Your task to perform on an android device: check battery use Image 0: 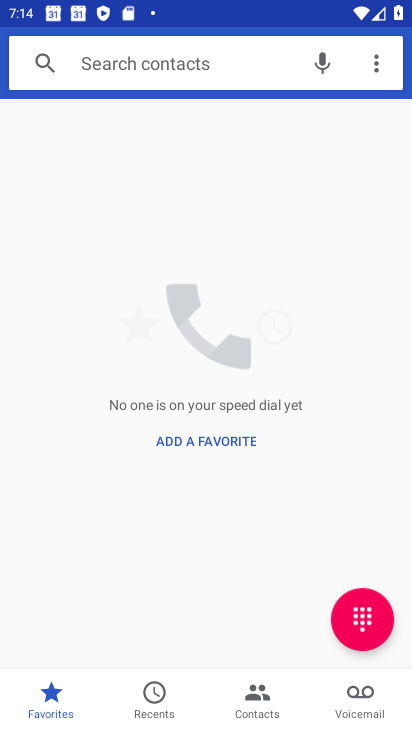
Step 0: press home button
Your task to perform on an android device: check battery use Image 1: 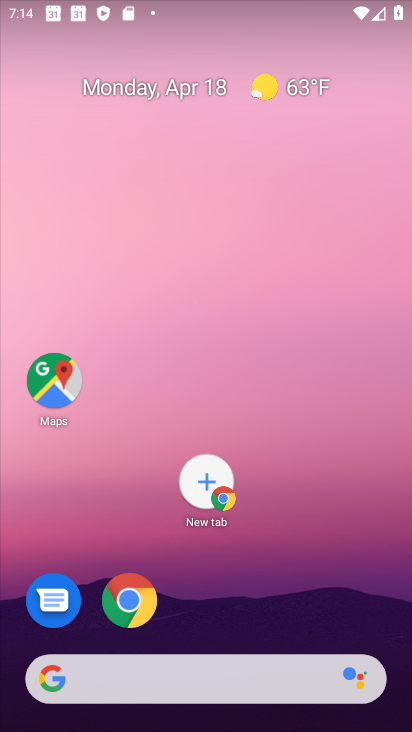
Step 1: drag from (252, 27) to (124, 8)
Your task to perform on an android device: check battery use Image 2: 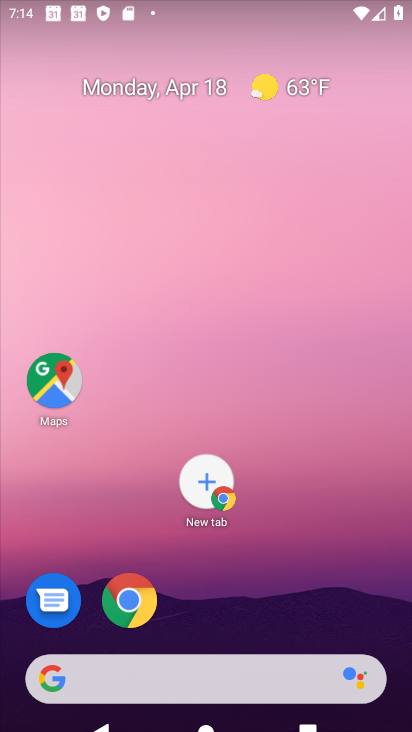
Step 2: drag from (326, 607) to (312, 1)
Your task to perform on an android device: check battery use Image 3: 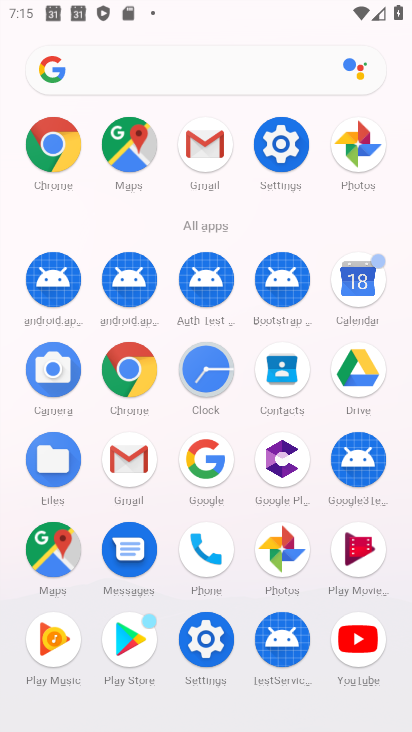
Step 3: click (284, 143)
Your task to perform on an android device: check battery use Image 4: 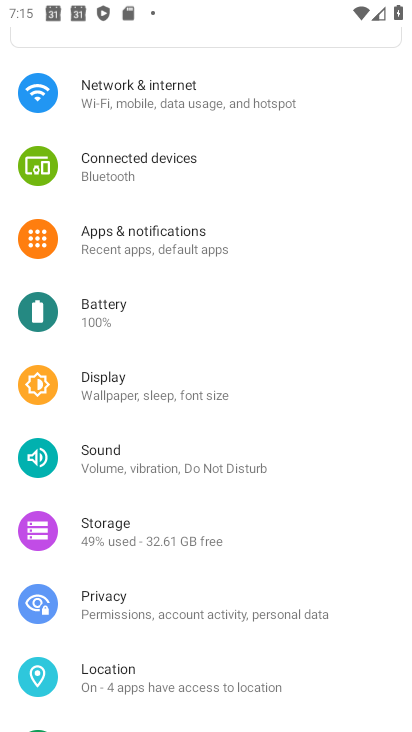
Step 4: click (110, 304)
Your task to perform on an android device: check battery use Image 5: 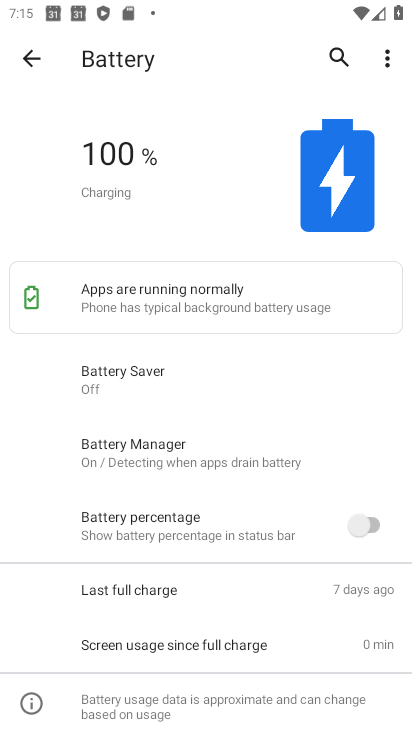
Step 5: task complete